Your task to perform on an android device: Go to eBay Image 0: 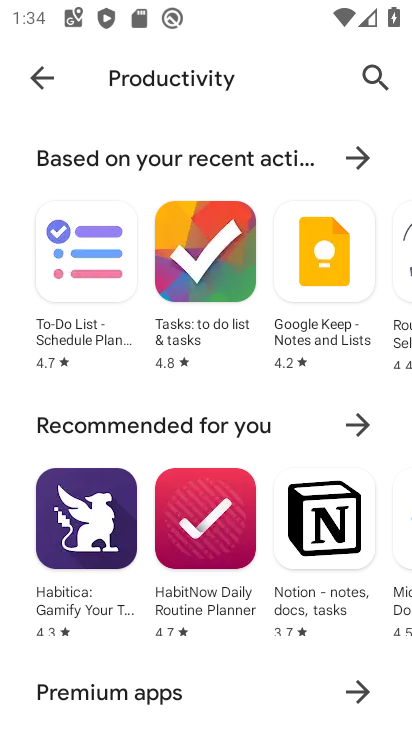
Step 0: press home button
Your task to perform on an android device: Go to eBay Image 1: 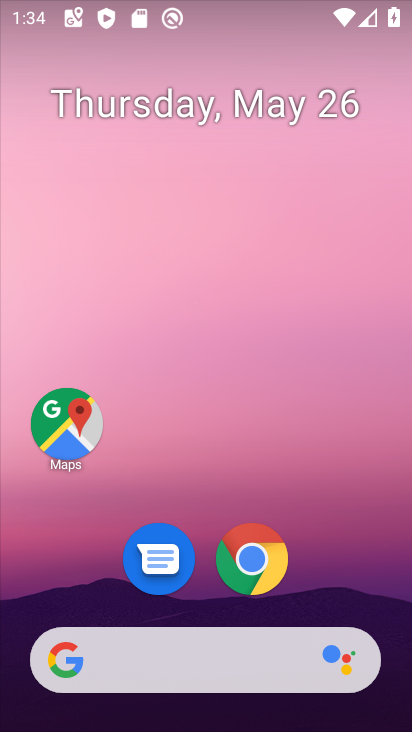
Step 1: click (248, 574)
Your task to perform on an android device: Go to eBay Image 2: 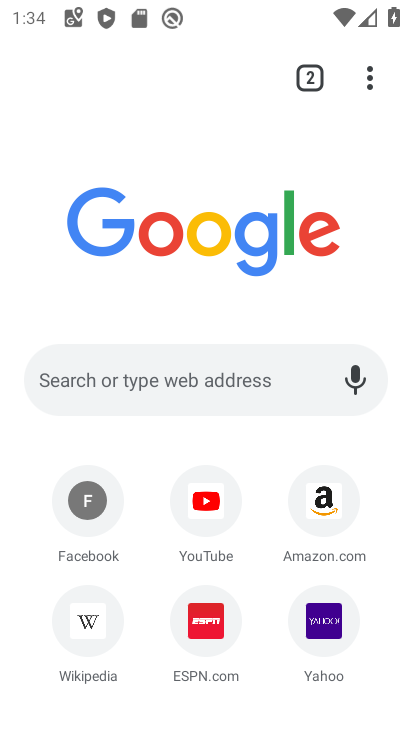
Step 2: click (179, 382)
Your task to perform on an android device: Go to eBay Image 3: 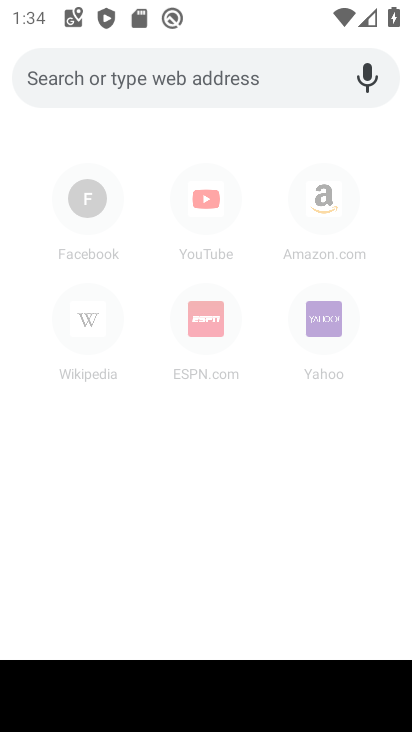
Step 3: type "ebay"
Your task to perform on an android device: Go to eBay Image 4: 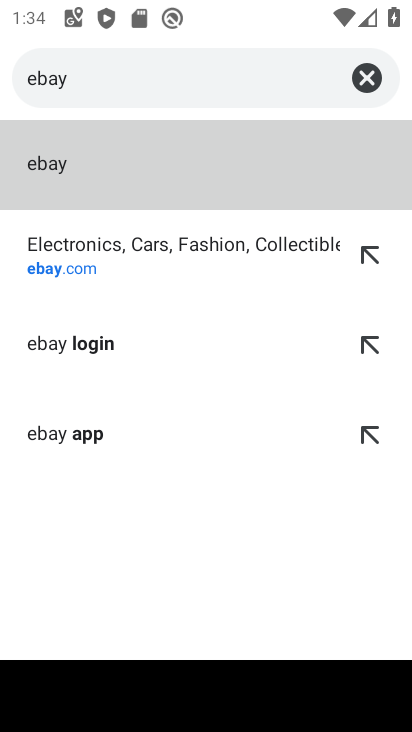
Step 4: click (79, 245)
Your task to perform on an android device: Go to eBay Image 5: 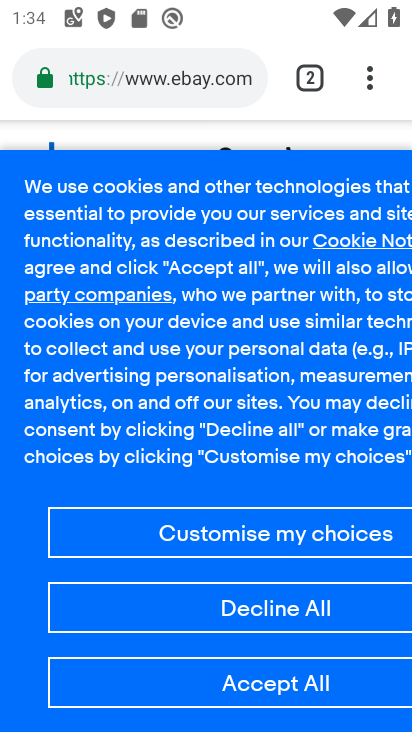
Step 5: task complete